Your task to perform on an android device: Google the capital of Ecuador Image 0: 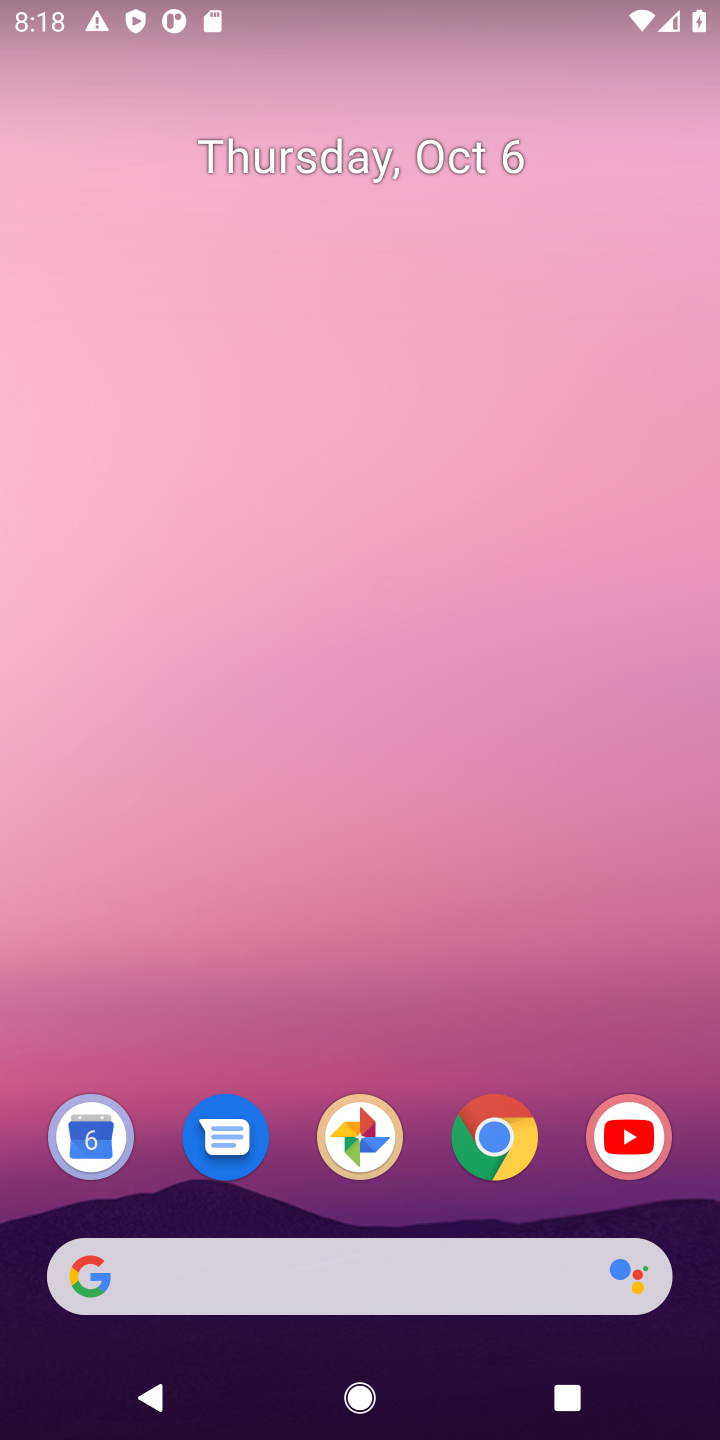
Step 0: click (243, 1280)
Your task to perform on an android device: Google the capital of Ecuador Image 1: 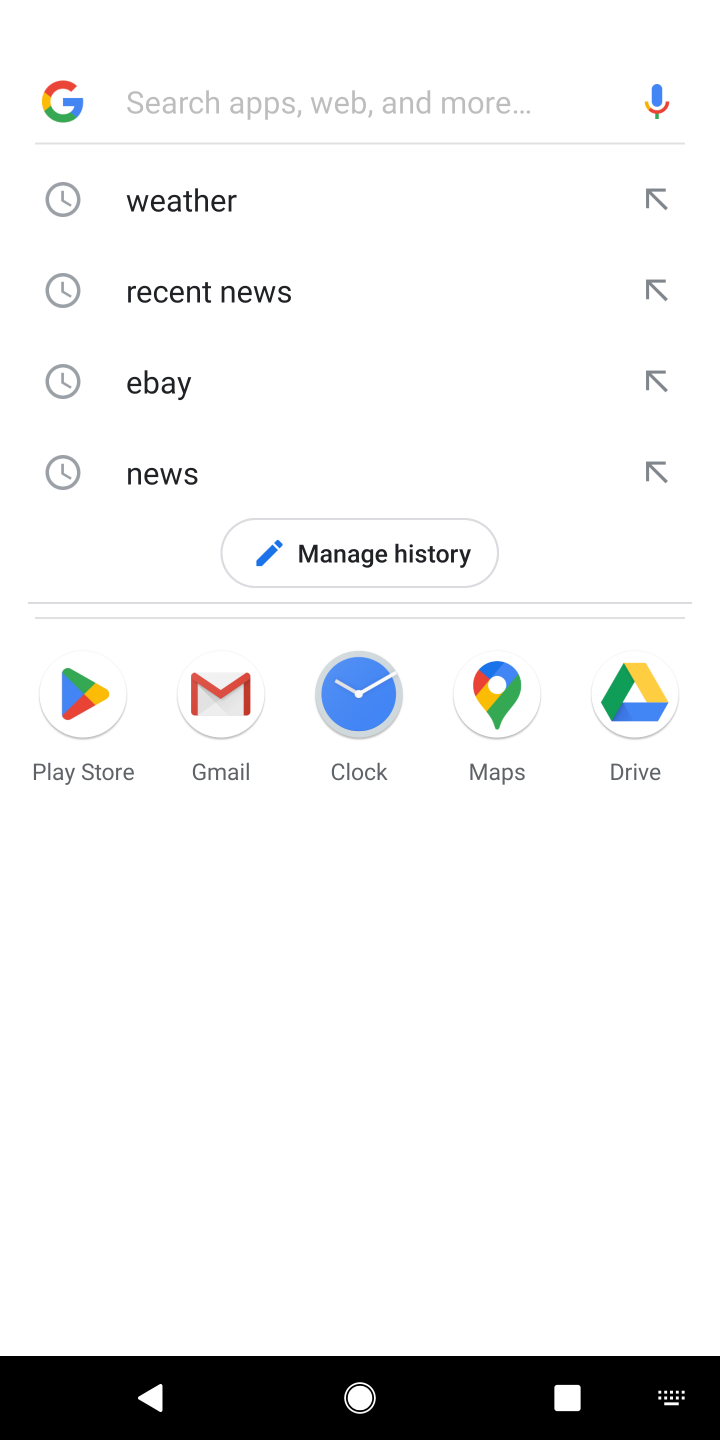
Step 1: type "the capital of Ecuador"
Your task to perform on an android device: Google the capital of Ecuador Image 2: 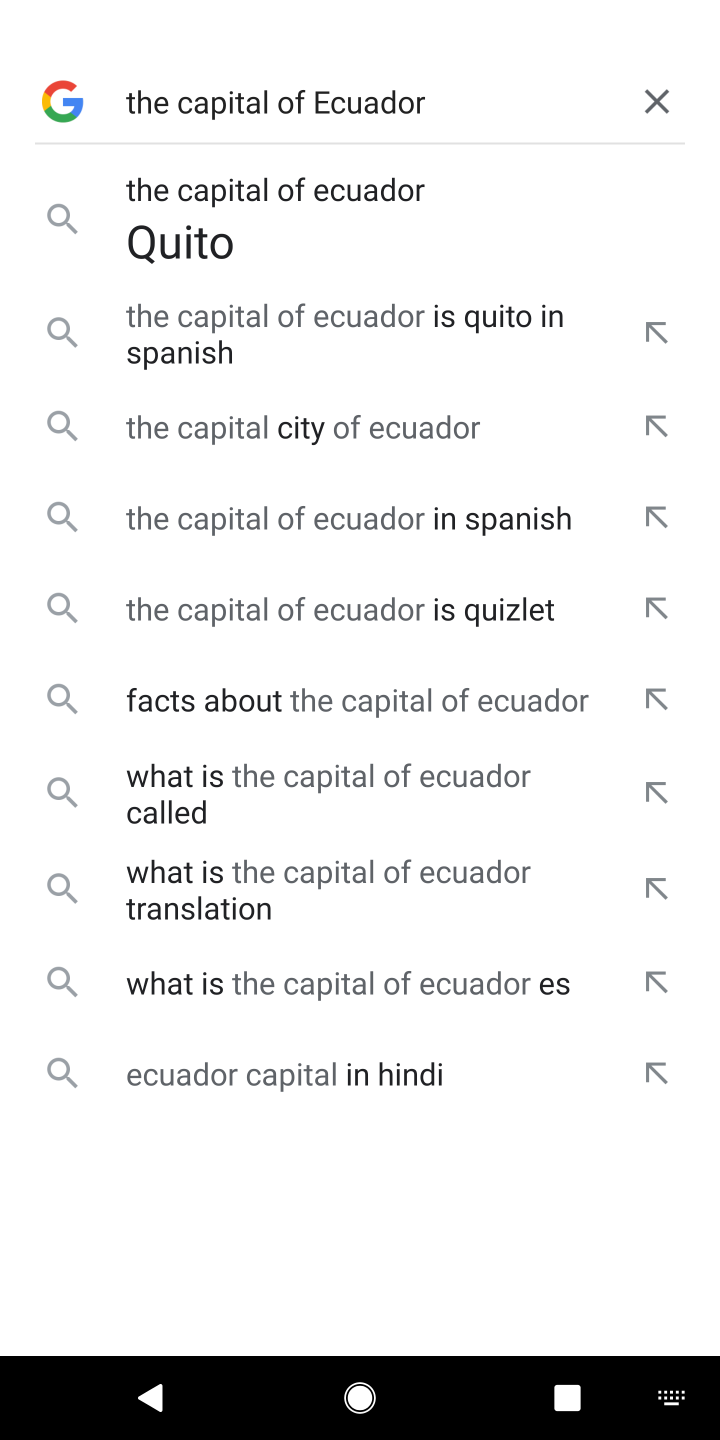
Step 2: click (206, 232)
Your task to perform on an android device: Google the capital of Ecuador Image 3: 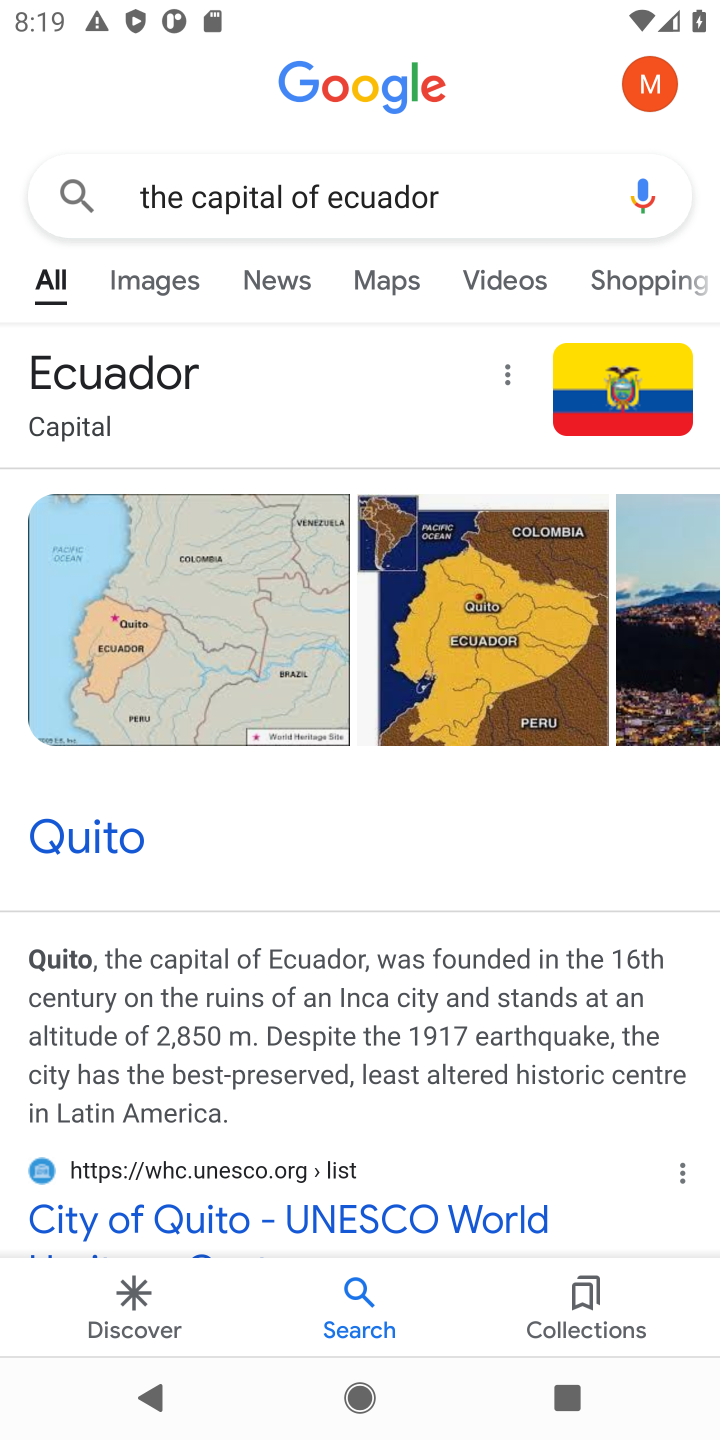
Step 3: click (80, 850)
Your task to perform on an android device: Google the capital of Ecuador Image 4: 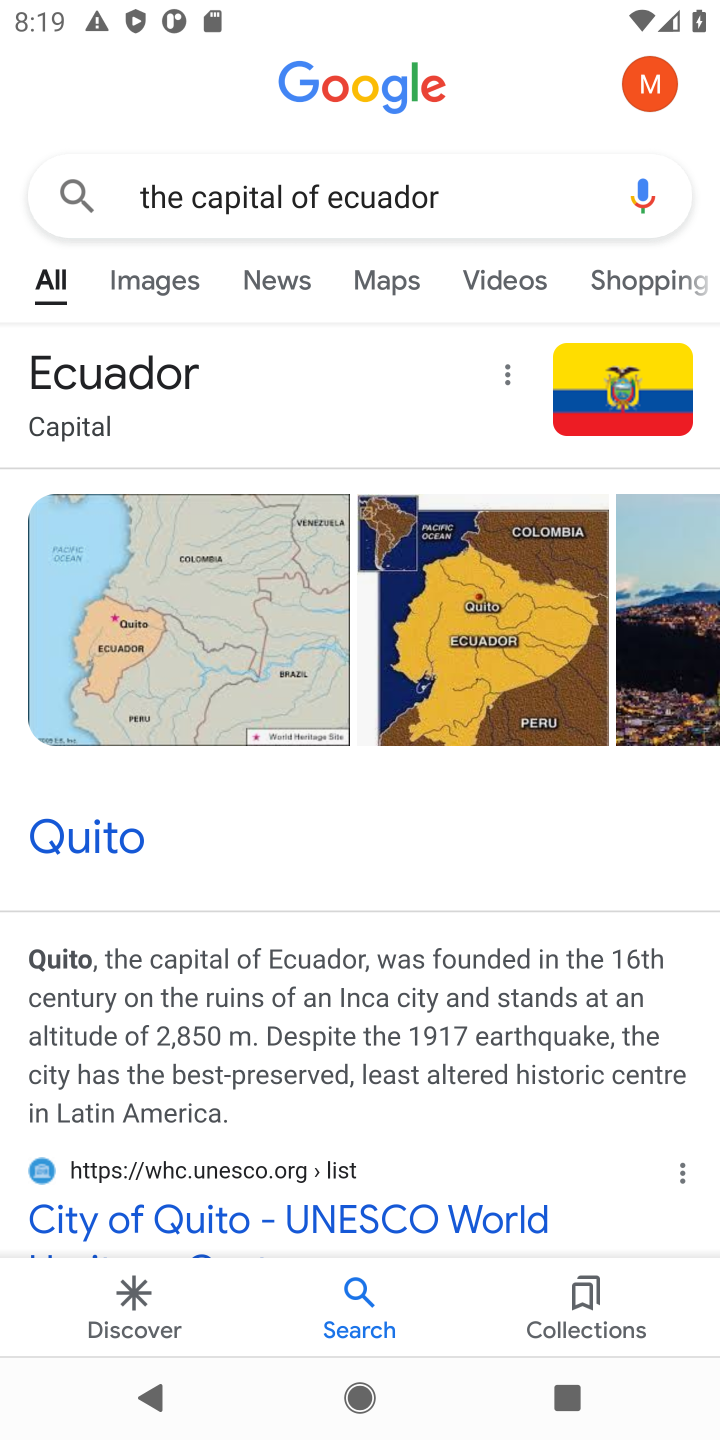
Step 4: click (84, 841)
Your task to perform on an android device: Google the capital of Ecuador Image 5: 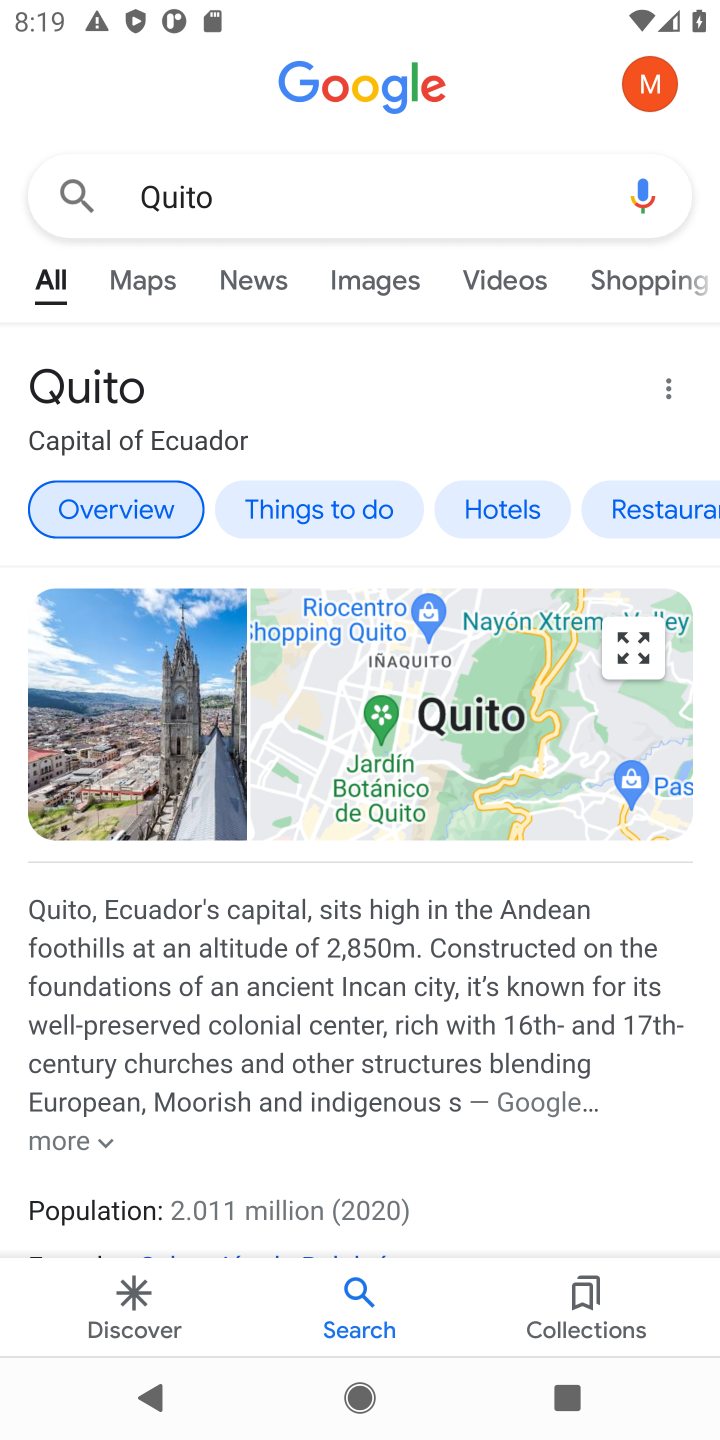
Step 5: task complete